Your task to perform on an android device: see tabs open on other devices in the chrome app Image 0: 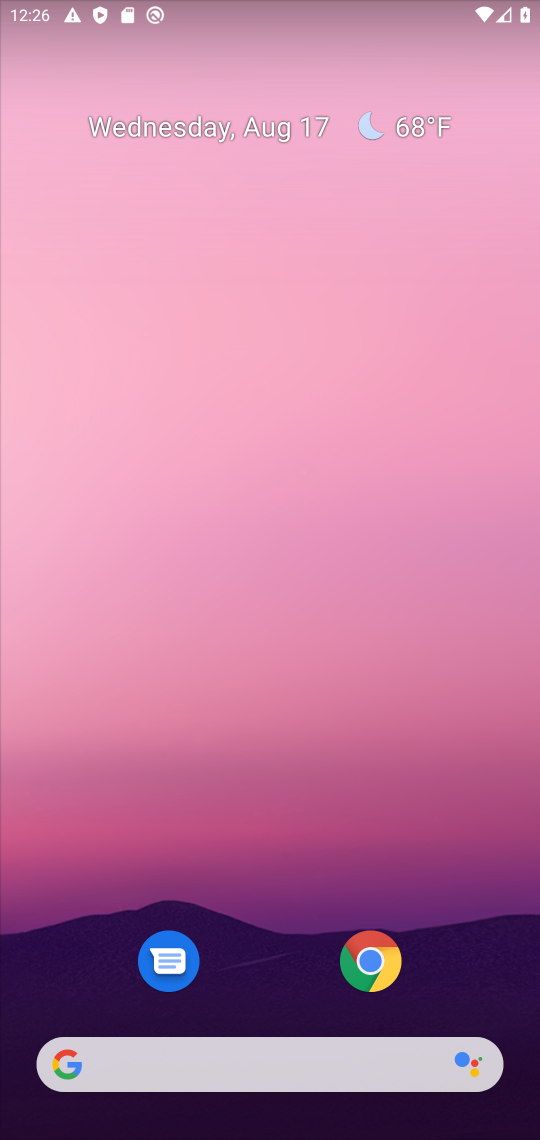
Step 0: drag from (365, 1098) to (384, 319)
Your task to perform on an android device: see tabs open on other devices in the chrome app Image 1: 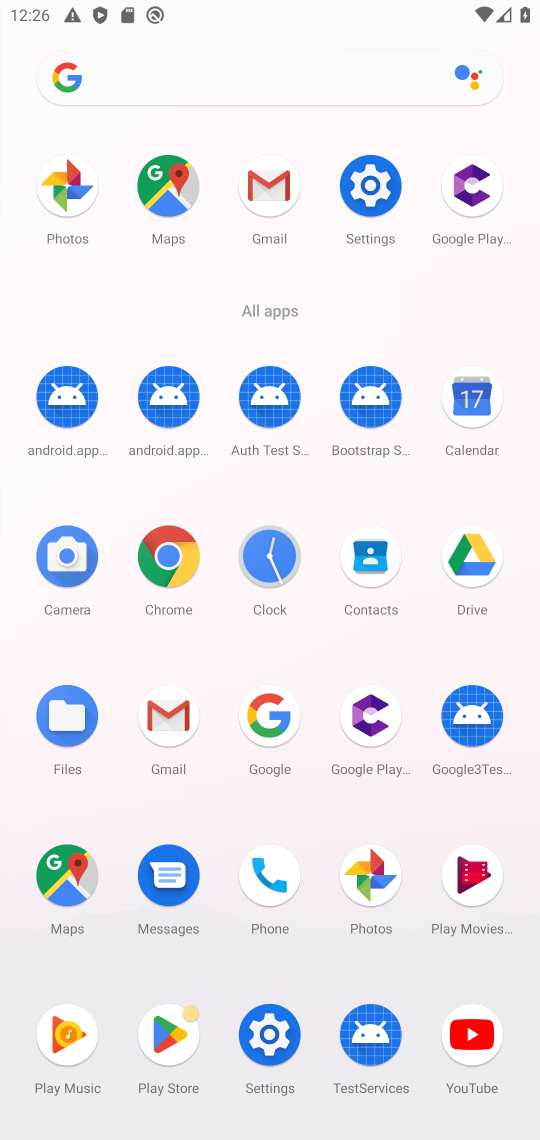
Step 1: click (183, 574)
Your task to perform on an android device: see tabs open on other devices in the chrome app Image 2: 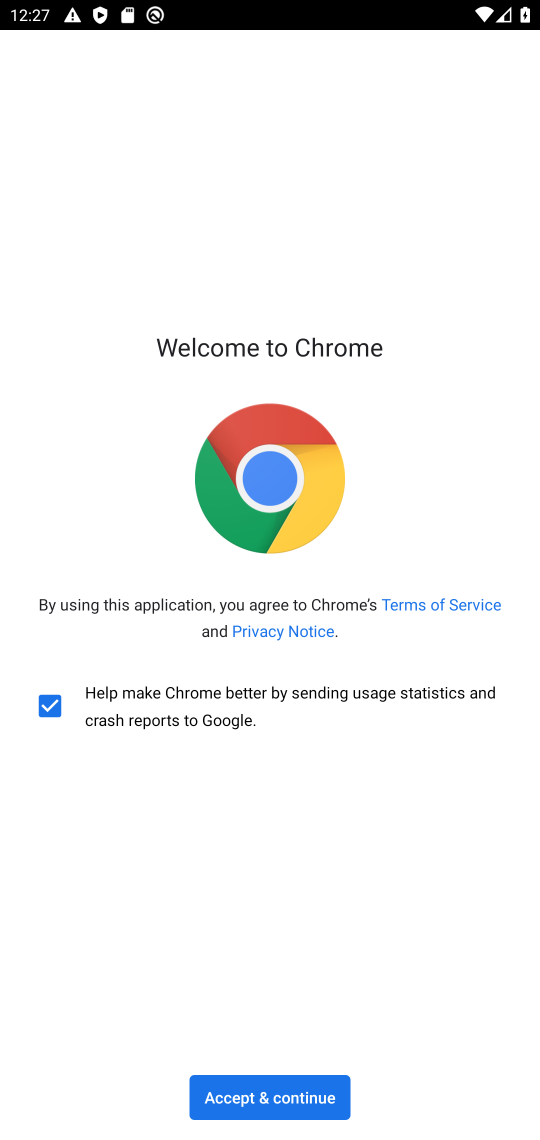
Step 2: click (307, 1094)
Your task to perform on an android device: see tabs open on other devices in the chrome app Image 3: 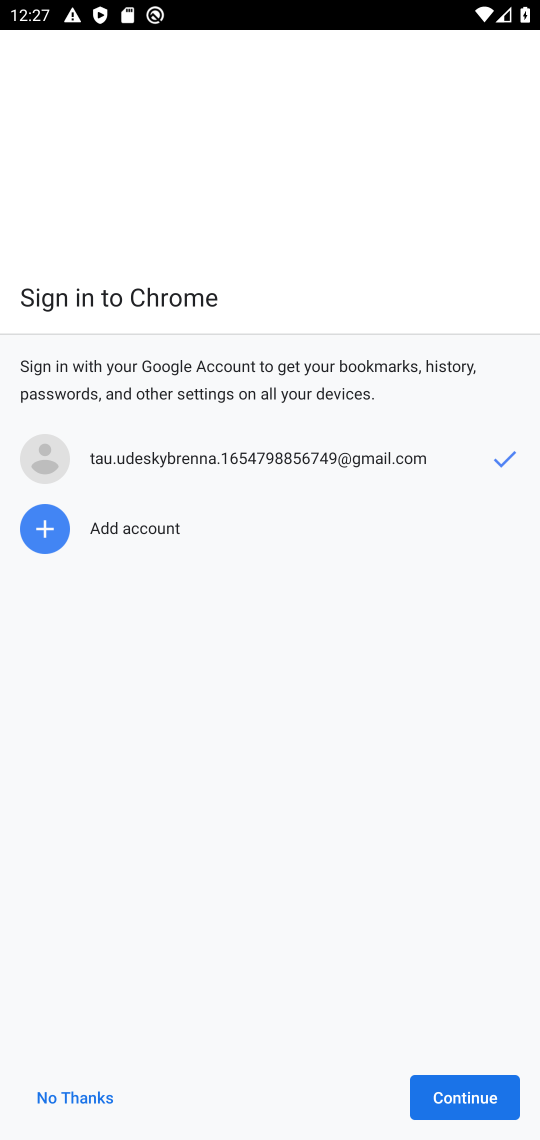
Step 3: click (455, 1103)
Your task to perform on an android device: see tabs open on other devices in the chrome app Image 4: 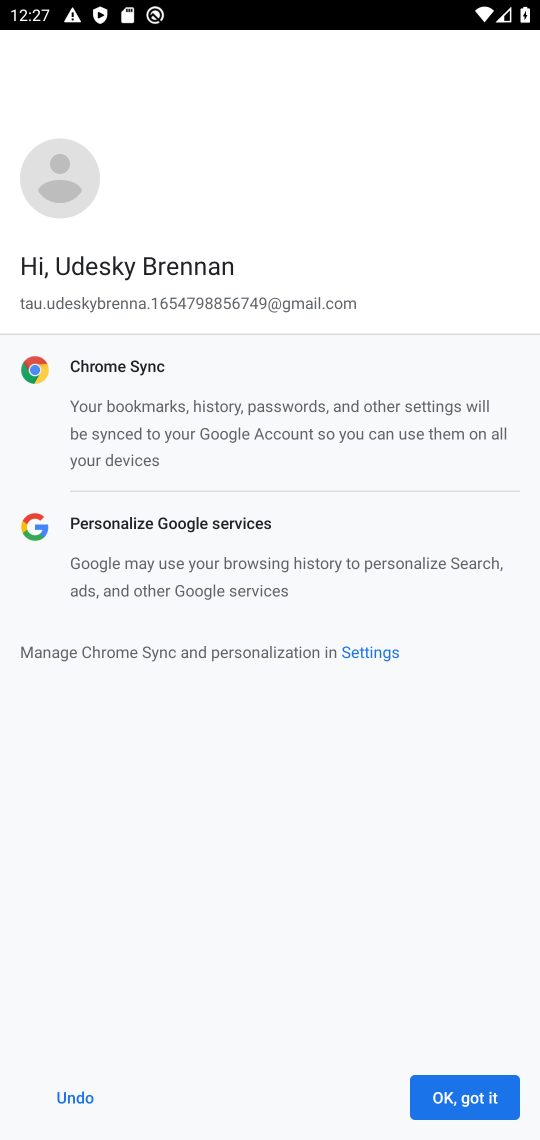
Step 4: click (454, 1094)
Your task to perform on an android device: see tabs open on other devices in the chrome app Image 5: 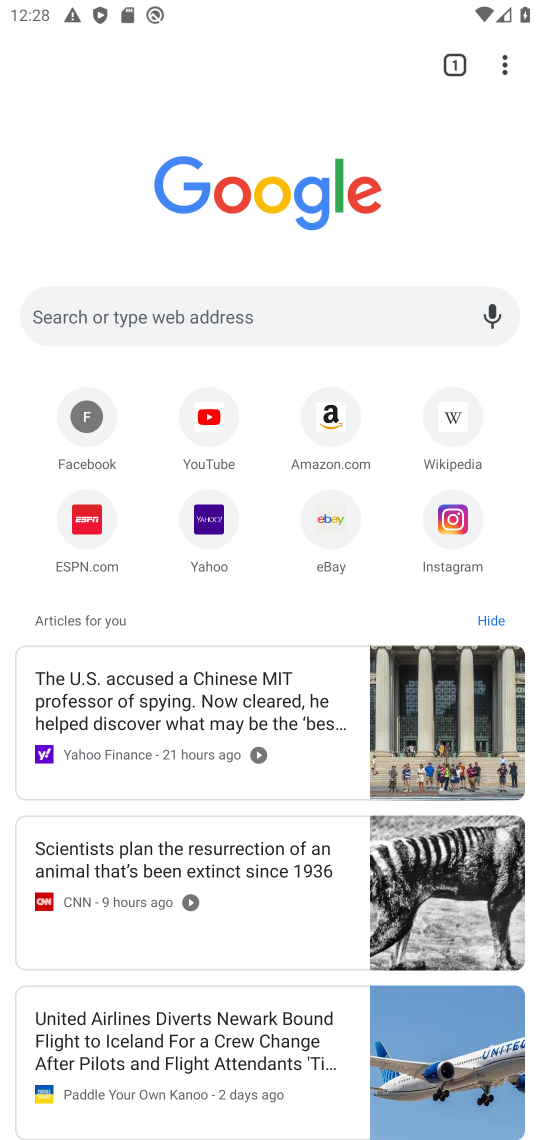
Step 5: click (447, 62)
Your task to perform on an android device: see tabs open on other devices in the chrome app Image 6: 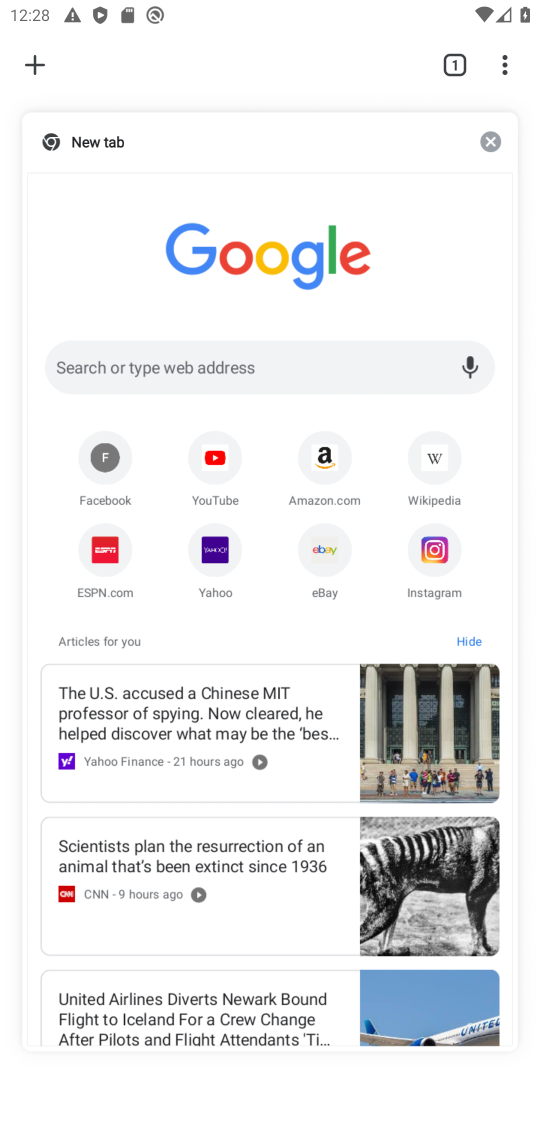
Step 6: task complete